Your task to perform on an android device: What's on my calendar tomorrow? Image 0: 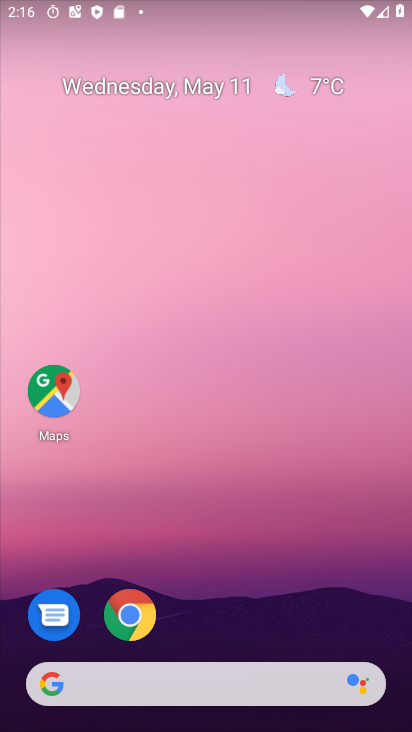
Step 0: drag from (193, 644) to (210, 140)
Your task to perform on an android device: What's on my calendar tomorrow? Image 1: 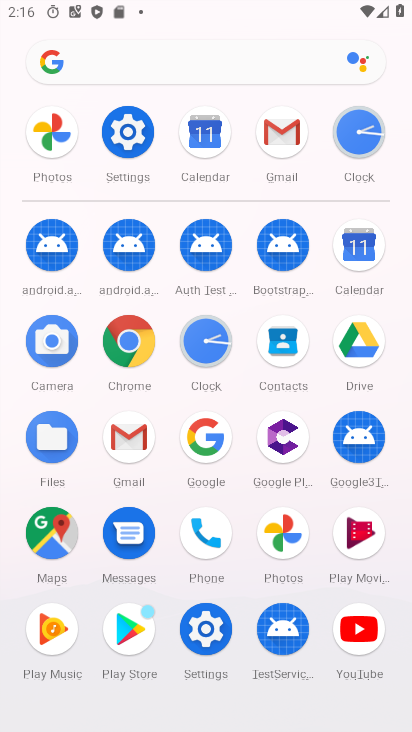
Step 1: click (196, 146)
Your task to perform on an android device: What's on my calendar tomorrow? Image 2: 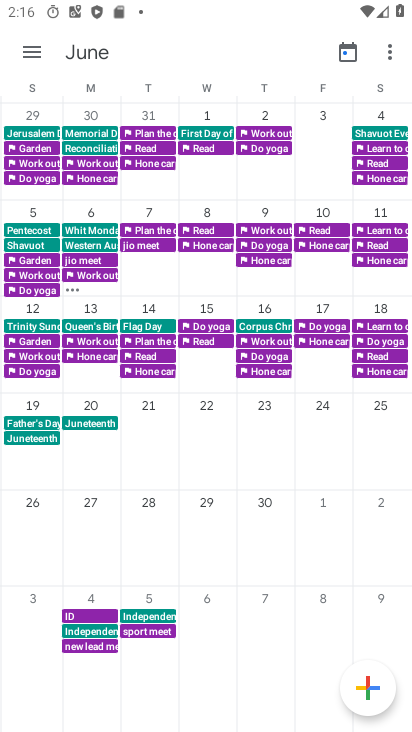
Step 2: click (38, 49)
Your task to perform on an android device: What's on my calendar tomorrow? Image 3: 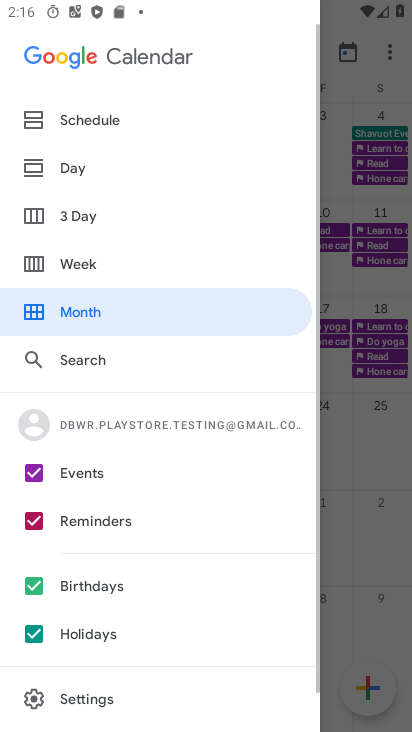
Step 3: click (106, 107)
Your task to perform on an android device: What's on my calendar tomorrow? Image 4: 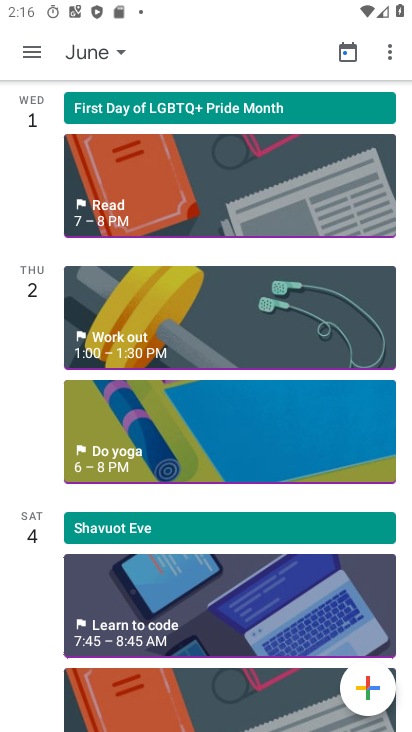
Step 4: click (121, 53)
Your task to perform on an android device: What's on my calendar tomorrow? Image 5: 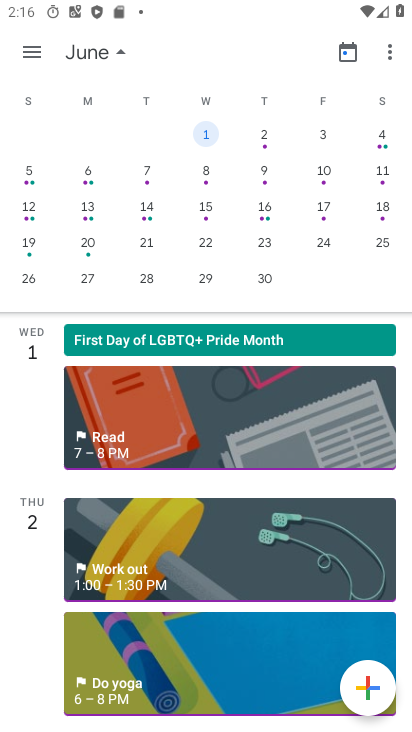
Step 5: drag from (45, 229) to (360, 222)
Your task to perform on an android device: What's on my calendar tomorrow? Image 6: 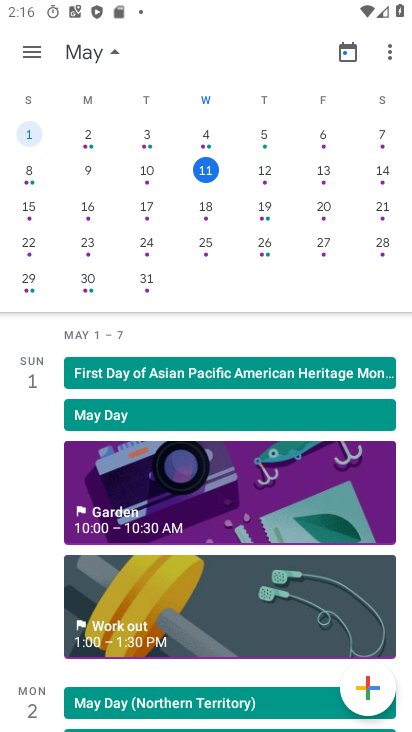
Step 6: click (267, 171)
Your task to perform on an android device: What's on my calendar tomorrow? Image 7: 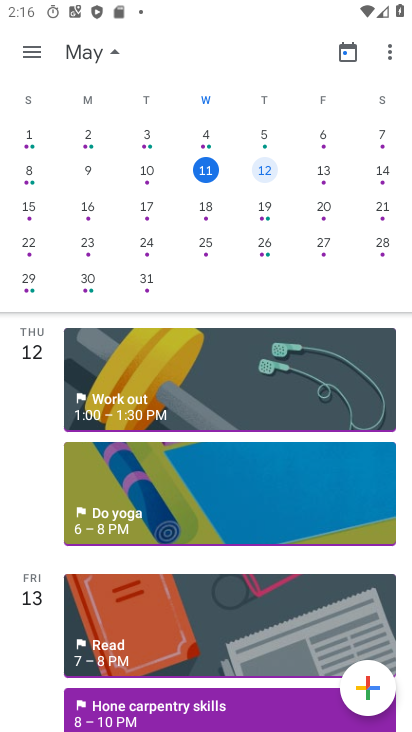
Step 7: click (113, 53)
Your task to perform on an android device: What's on my calendar tomorrow? Image 8: 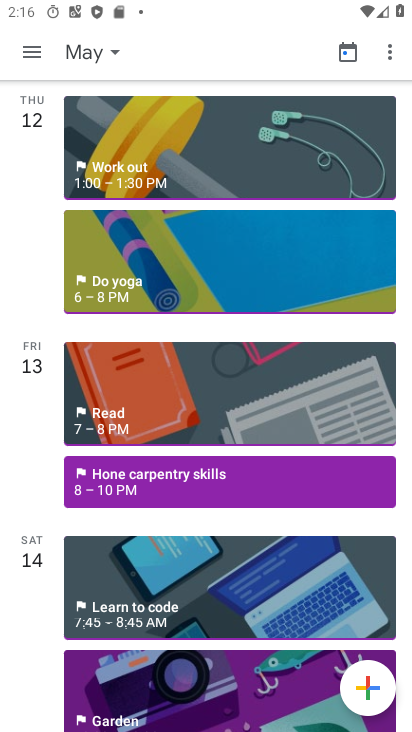
Step 8: task complete